Your task to perform on an android device: Go to Reddit.com Image 0: 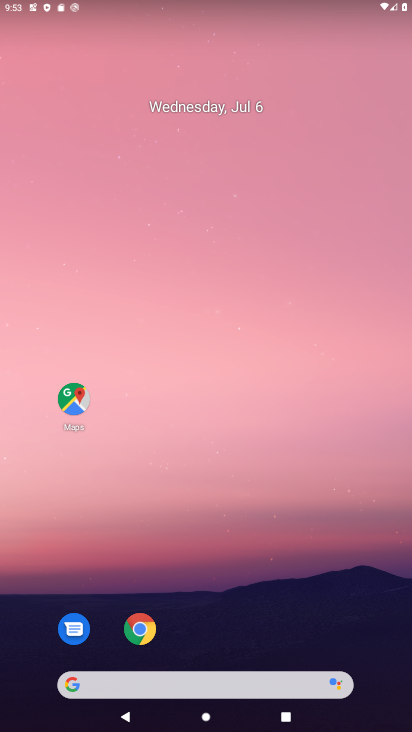
Step 0: drag from (205, 626) to (177, 96)
Your task to perform on an android device: Go to Reddit.com Image 1: 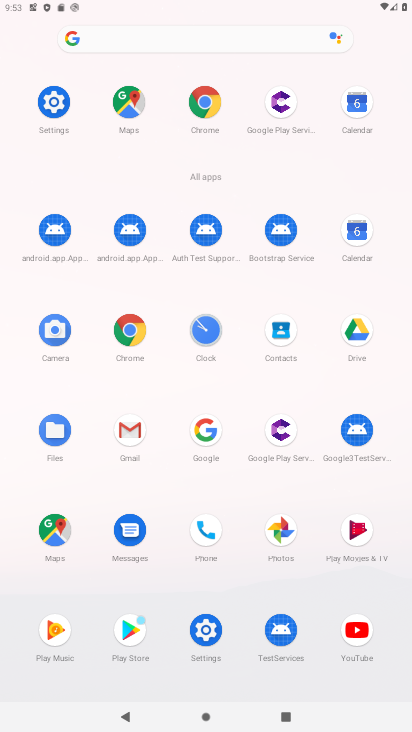
Step 1: drag from (167, 591) to (161, 406)
Your task to perform on an android device: Go to Reddit.com Image 2: 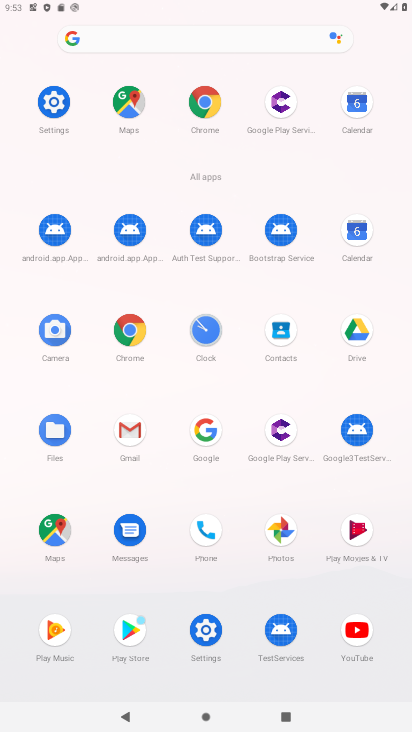
Step 2: click (210, 428)
Your task to perform on an android device: Go to Reddit.com Image 3: 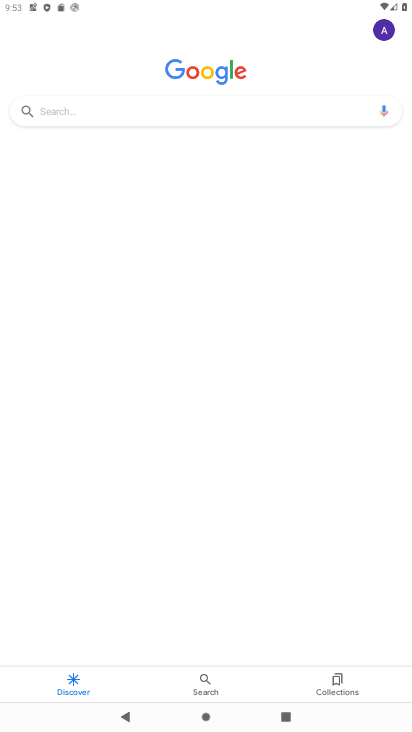
Step 3: click (221, 115)
Your task to perform on an android device: Go to Reddit.com Image 4: 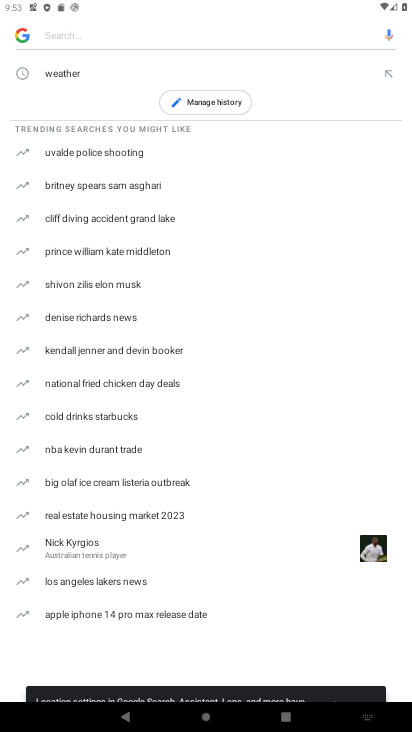
Step 4: type "Reddit.com"
Your task to perform on an android device: Go to Reddit.com Image 5: 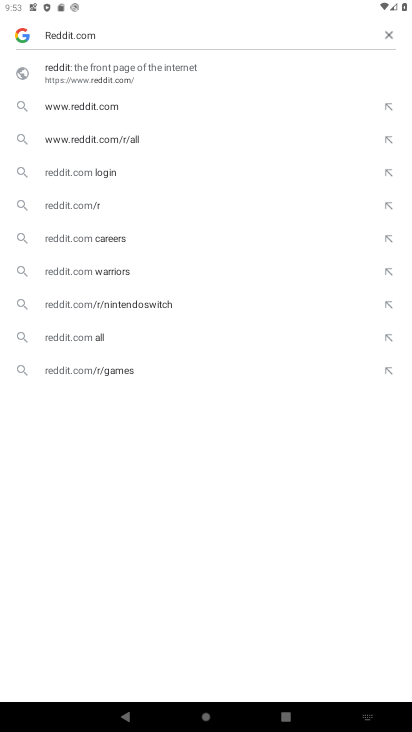
Step 5: click (86, 109)
Your task to perform on an android device: Go to Reddit.com Image 6: 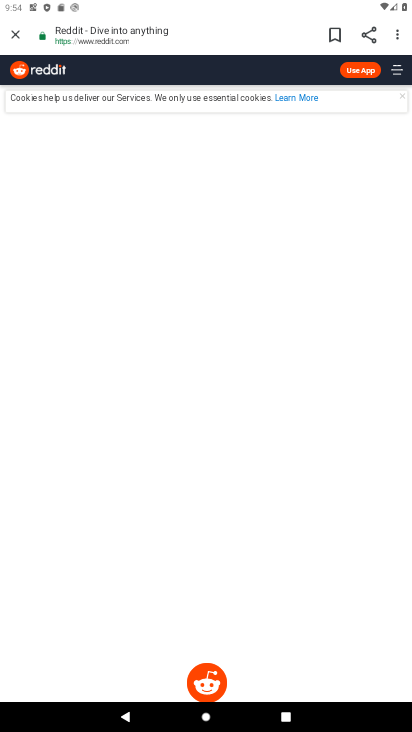
Step 6: task complete